Your task to perform on an android device: see creations saved in the google photos Image 0: 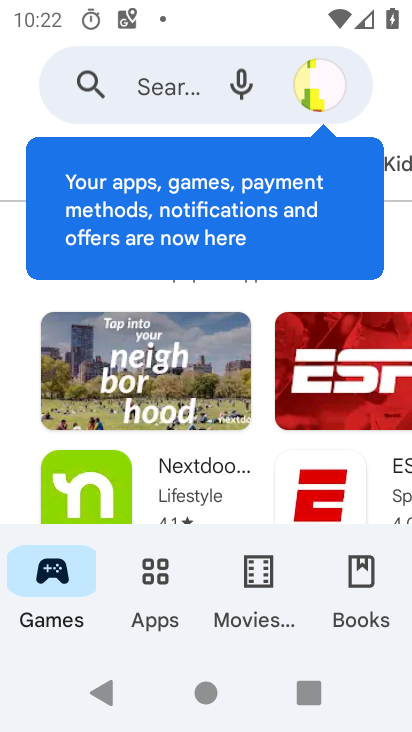
Step 0: press back button
Your task to perform on an android device: see creations saved in the google photos Image 1: 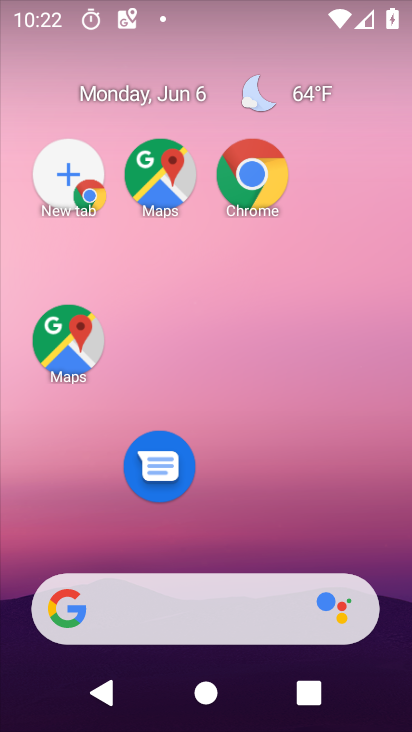
Step 1: drag from (262, 683) to (233, 46)
Your task to perform on an android device: see creations saved in the google photos Image 2: 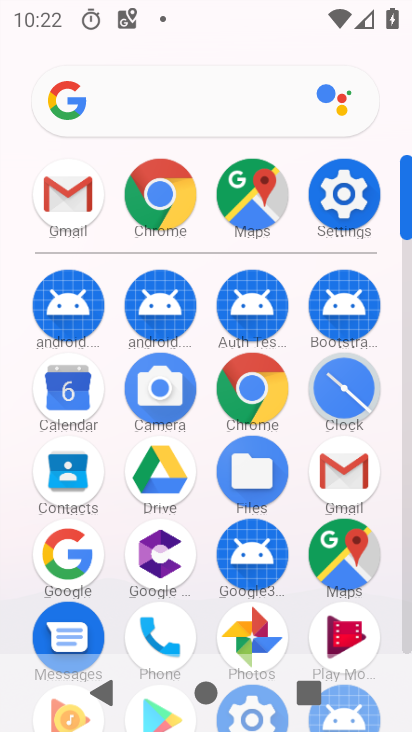
Step 2: click (258, 645)
Your task to perform on an android device: see creations saved in the google photos Image 3: 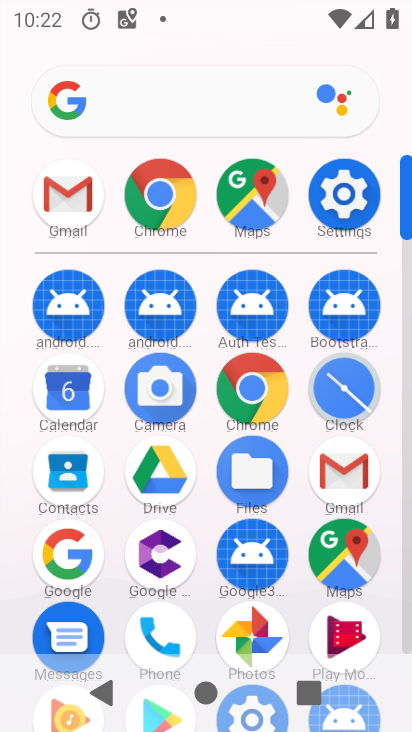
Step 3: click (258, 645)
Your task to perform on an android device: see creations saved in the google photos Image 4: 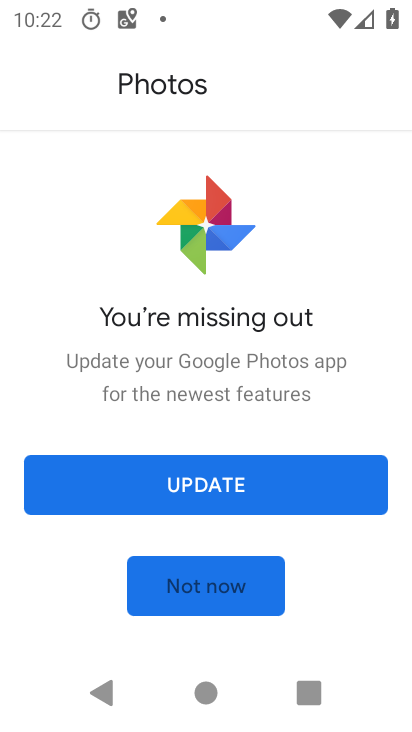
Step 4: click (199, 482)
Your task to perform on an android device: see creations saved in the google photos Image 5: 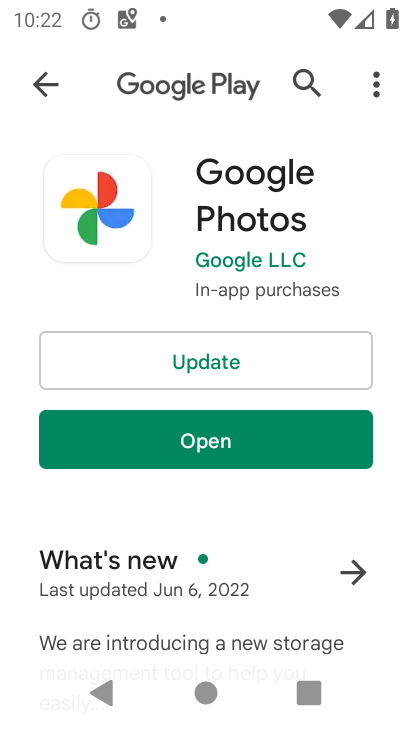
Step 5: click (184, 364)
Your task to perform on an android device: see creations saved in the google photos Image 6: 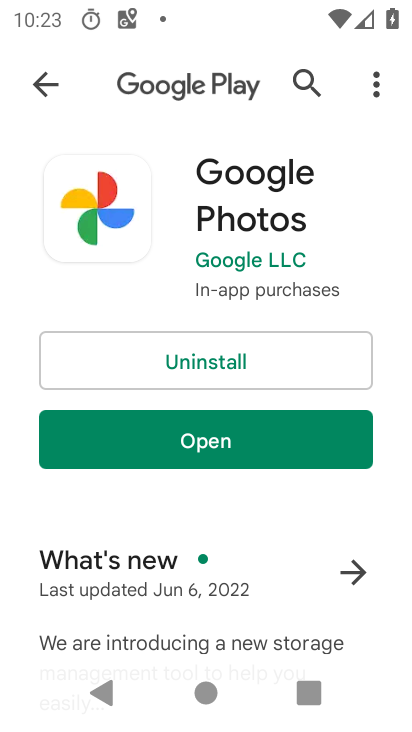
Step 6: click (207, 445)
Your task to perform on an android device: see creations saved in the google photos Image 7: 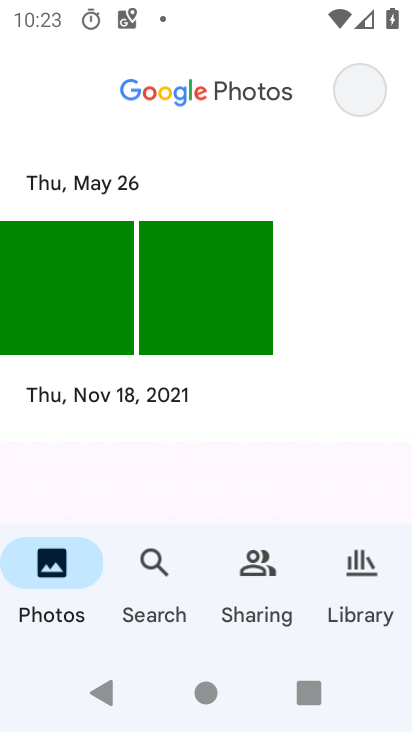
Step 7: task complete